Your task to perform on an android device: Set the phone to "Do not disturb". Image 0: 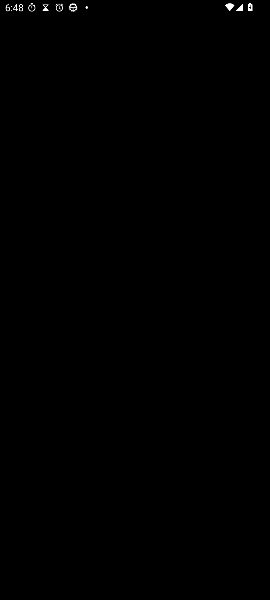
Step 0: press home button
Your task to perform on an android device: Set the phone to "Do not disturb". Image 1: 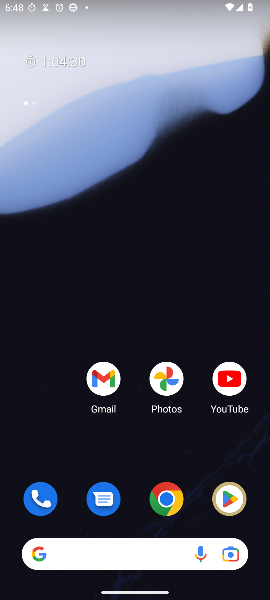
Step 1: drag from (118, 522) to (90, 55)
Your task to perform on an android device: Set the phone to "Do not disturb". Image 2: 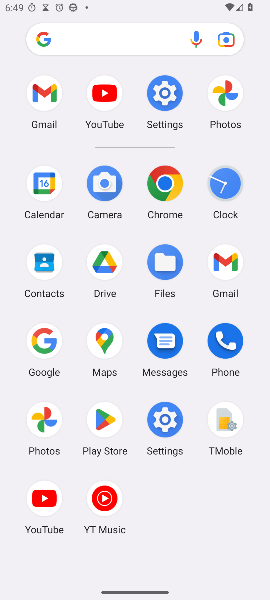
Step 2: click (159, 91)
Your task to perform on an android device: Set the phone to "Do not disturb". Image 3: 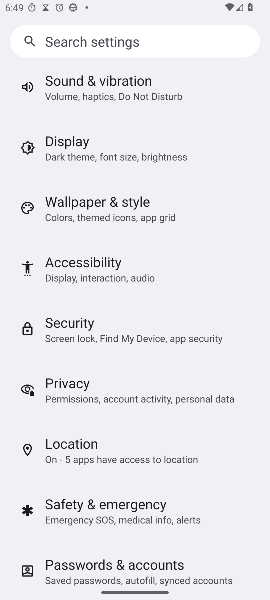
Step 3: drag from (133, 181) to (200, 455)
Your task to perform on an android device: Set the phone to "Do not disturb". Image 4: 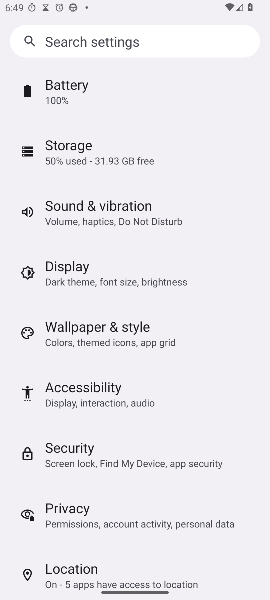
Step 4: click (67, 209)
Your task to perform on an android device: Set the phone to "Do not disturb". Image 5: 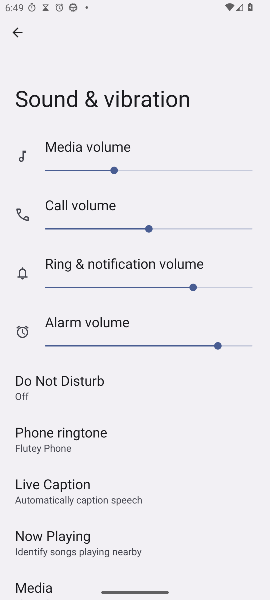
Step 5: task complete